Your task to perform on an android device: turn off data saver in the chrome app Image 0: 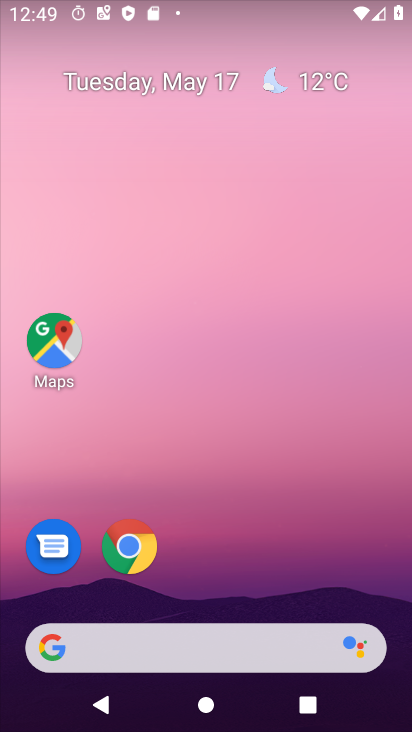
Step 0: drag from (159, 655) to (354, 128)
Your task to perform on an android device: turn off data saver in the chrome app Image 1: 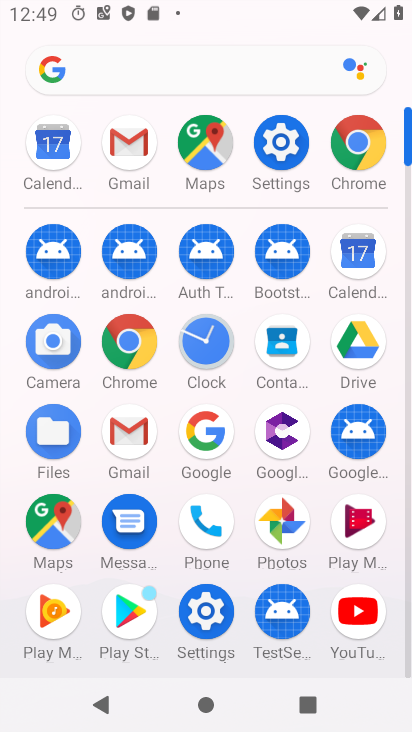
Step 1: click (356, 148)
Your task to perform on an android device: turn off data saver in the chrome app Image 2: 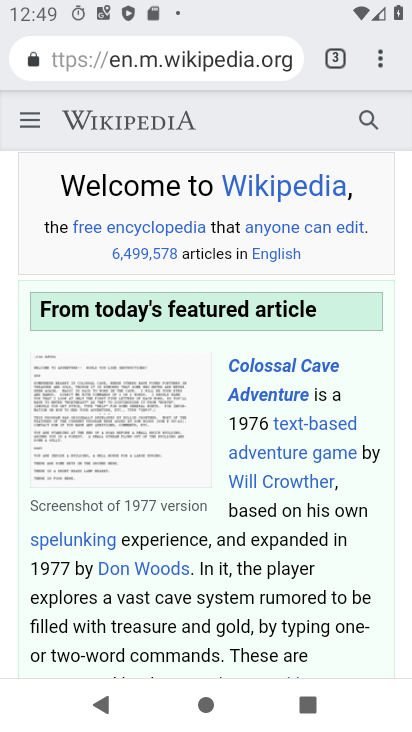
Step 2: drag from (382, 63) to (234, 586)
Your task to perform on an android device: turn off data saver in the chrome app Image 3: 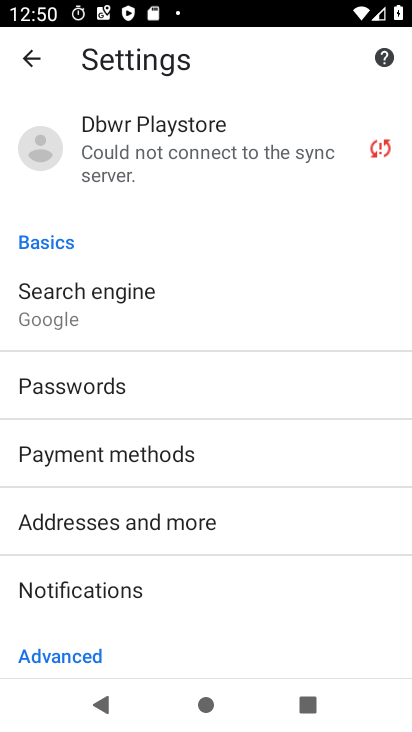
Step 3: drag from (172, 615) to (307, 237)
Your task to perform on an android device: turn off data saver in the chrome app Image 4: 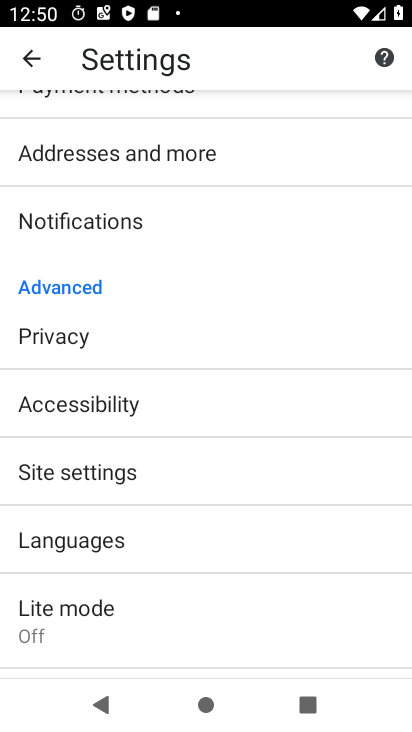
Step 4: click (103, 613)
Your task to perform on an android device: turn off data saver in the chrome app Image 5: 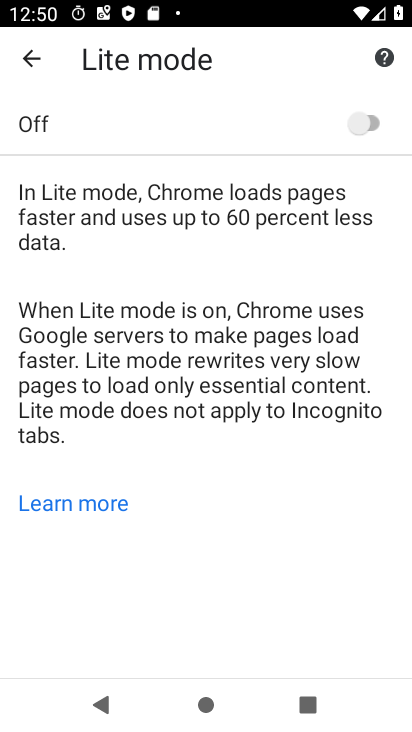
Step 5: task complete